Your task to perform on an android device: Open my contact list Image 0: 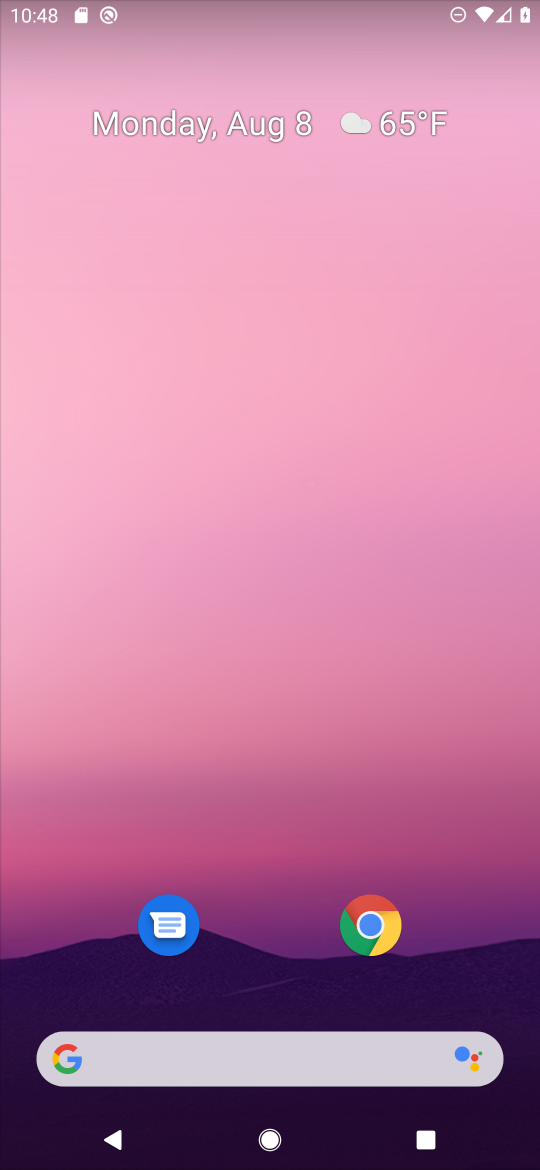
Step 0: drag from (246, 935) to (112, 226)
Your task to perform on an android device: Open my contact list Image 1: 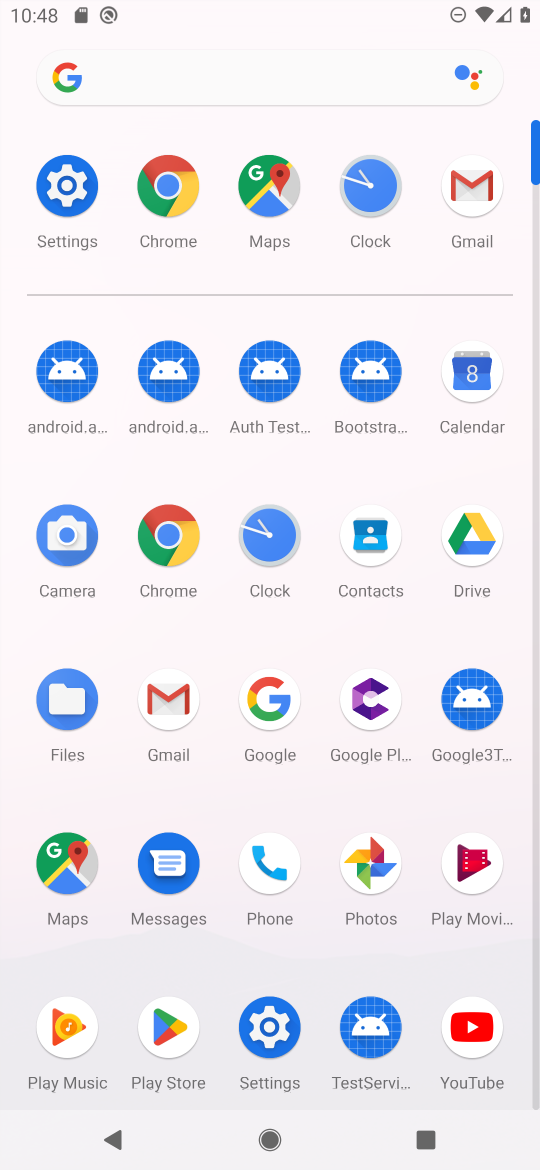
Step 1: click (370, 538)
Your task to perform on an android device: Open my contact list Image 2: 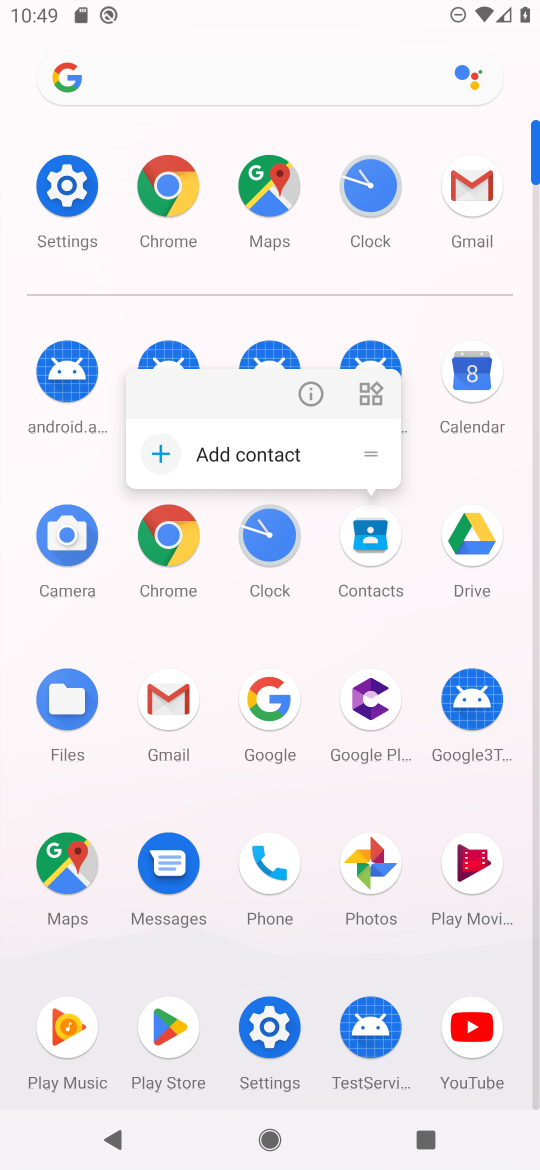
Step 2: click (389, 536)
Your task to perform on an android device: Open my contact list Image 3: 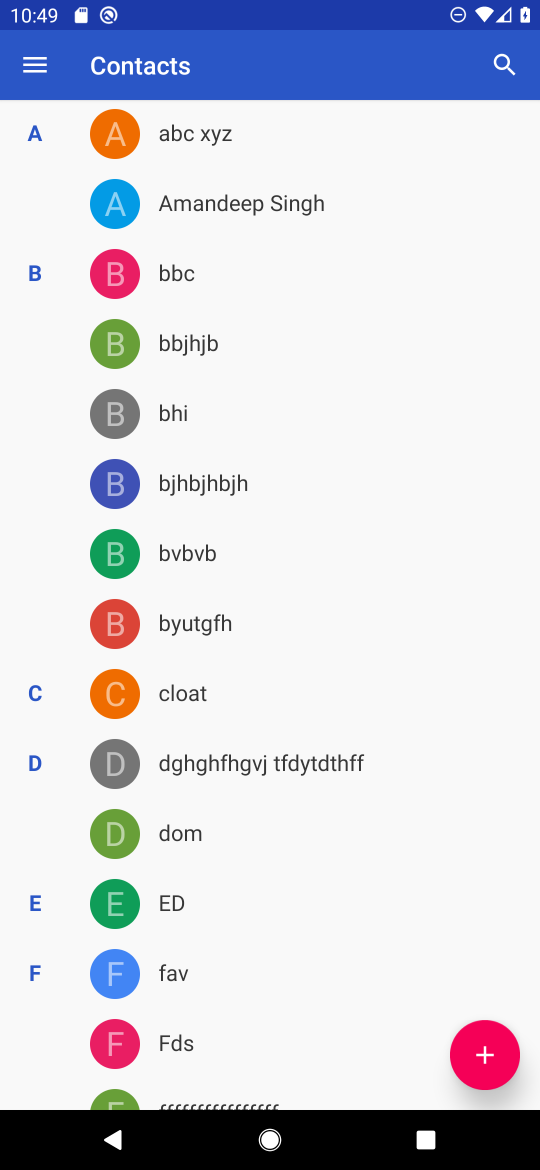
Step 3: task complete